Your task to perform on an android device: create a new album in the google photos Image 0: 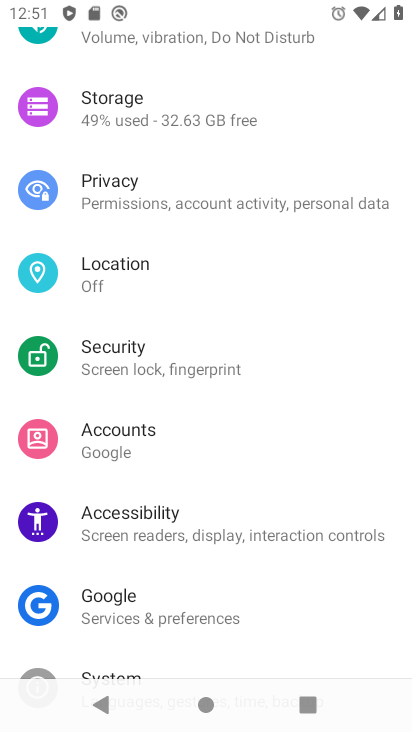
Step 0: press home button
Your task to perform on an android device: create a new album in the google photos Image 1: 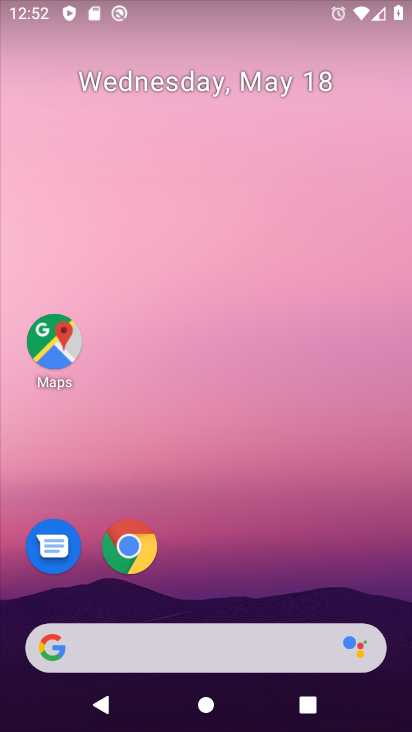
Step 1: drag from (214, 689) to (214, 115)
Your task to perform on an android device: create a new album in the google photos Image 2: 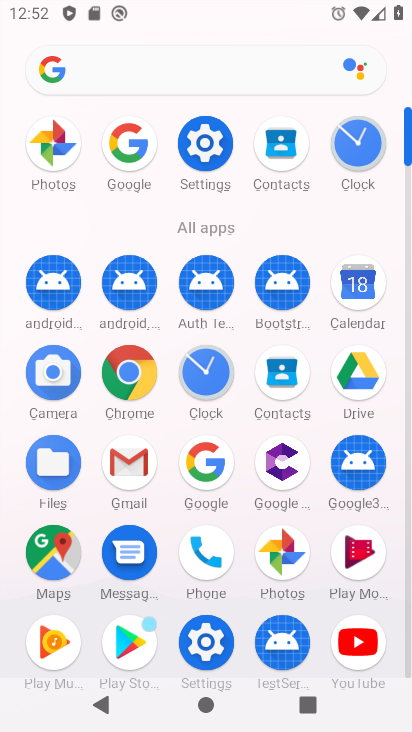
Step 2: click (287, 555)
Your task to perform on an android device: create a new album in the google photos Image 3: 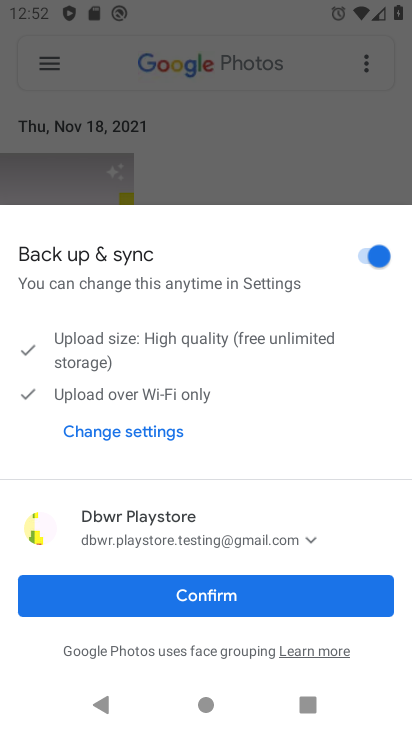
Step 3: click (269, 605)
Your task to perform on an android device: create a new album in the google photos Image 4: 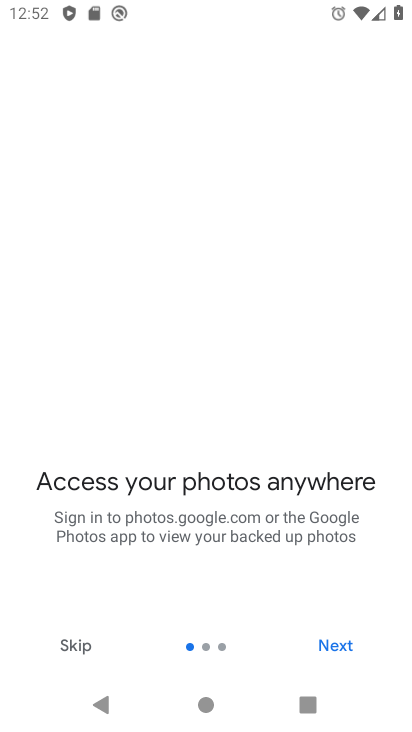
Step 4: click (344, 648)
Your task to perform on an android device: create a new album in the google photos Image 5: 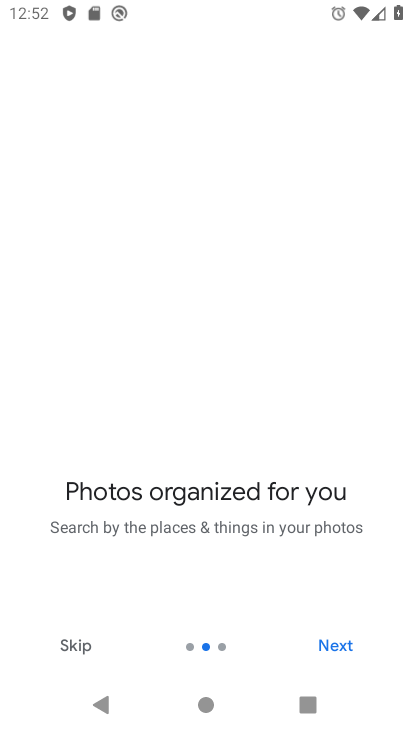
Step 5: click (337, 656)
Your task to perform on an android device: create a new album in the google photos Image 6: 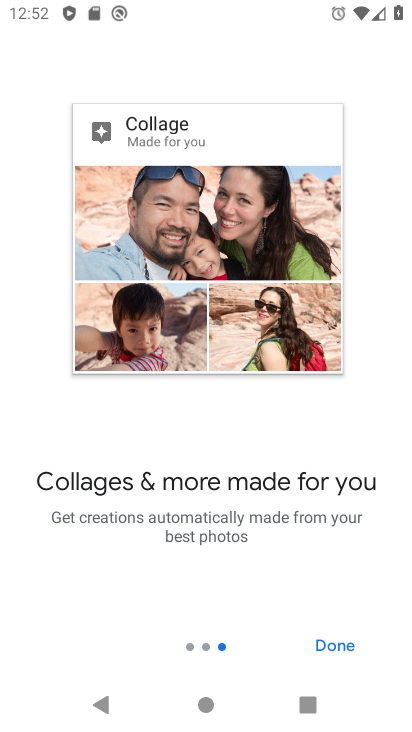
Step 6: click (342, 654)
Your task to perform on an android device: create a new album in the google photos Image 7: 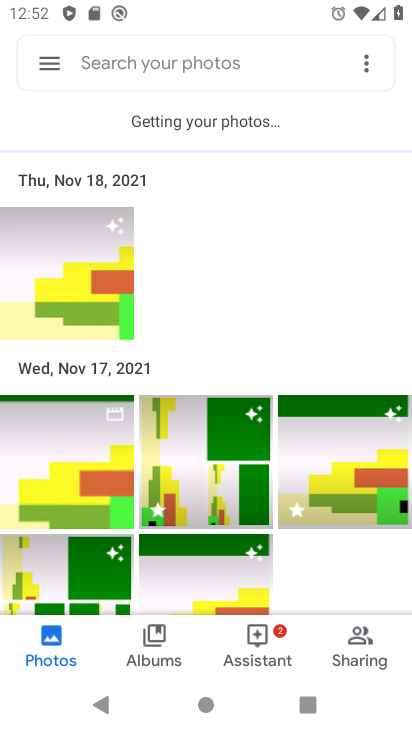
Step 7: click (171, 651)
Your task to perform on an android device: create a new album in the google photos Image 8: 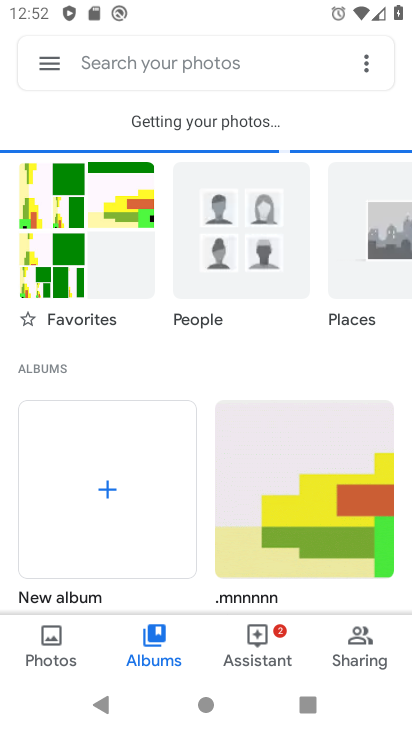
Step 8: click (131, 524)
Your task to perform on an android device: create a new album in the google photos Image 9: 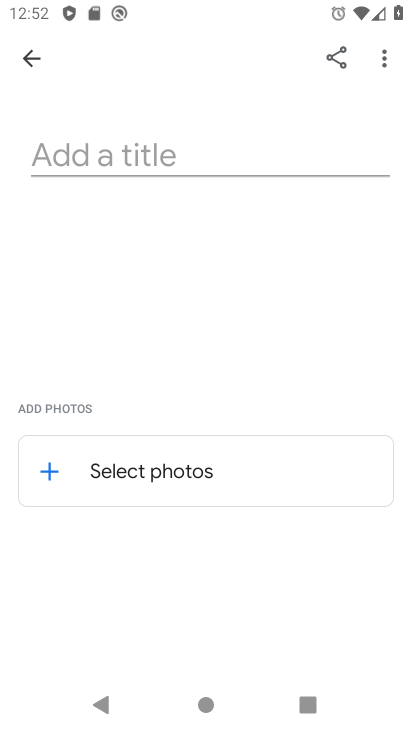
Step 9: click (161, 157)
Your task to perform on an android device: create a new album in the google photos Image 10: 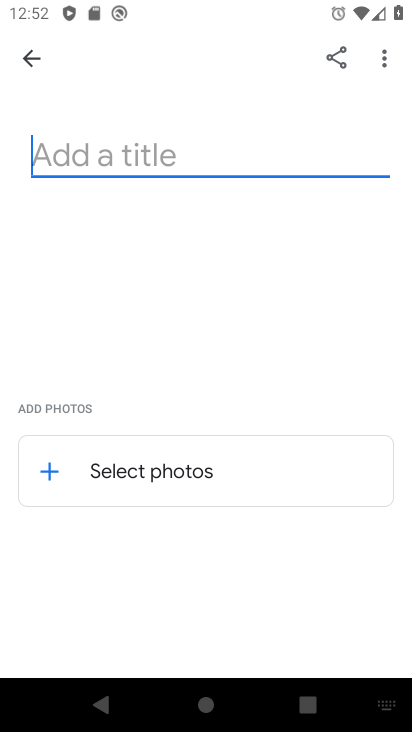
Step 10: type "jhgjg"
Your task to perform on an android device: create a new album in the google photos Image 11: 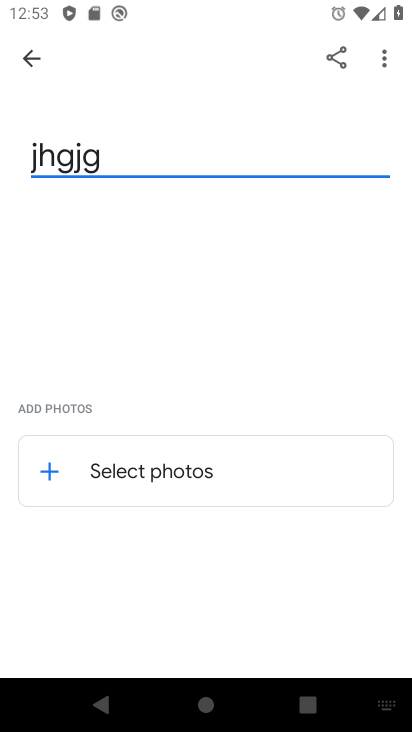
Step 11: click (58, 472)
Your task to perform on an android device: create a new album in the google photos Image 12: 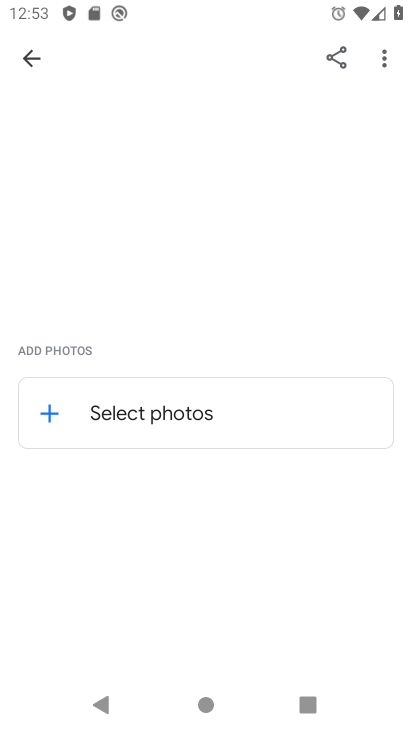
Step 12: click (52, 419)
Your task to perform on an android device: create a new album in the google photos Image 13: 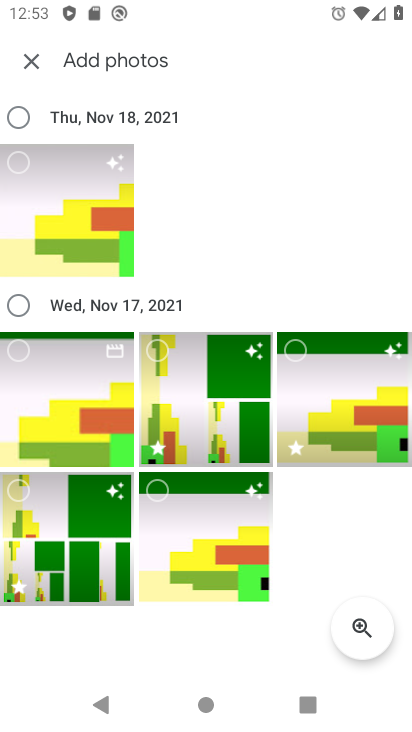
Step 13: click (26, 361)
Your task to perform on an android device: create a new album in the google photos Image 14: 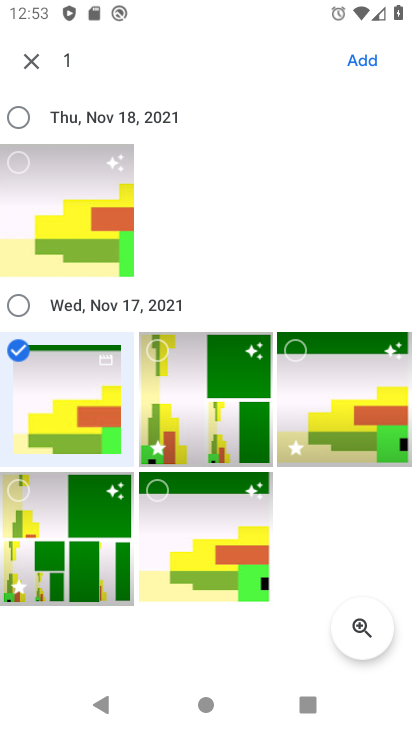
Step 14: click (154, 350)
Your task to perform on an android device: create a new album in the google photos Image 15: 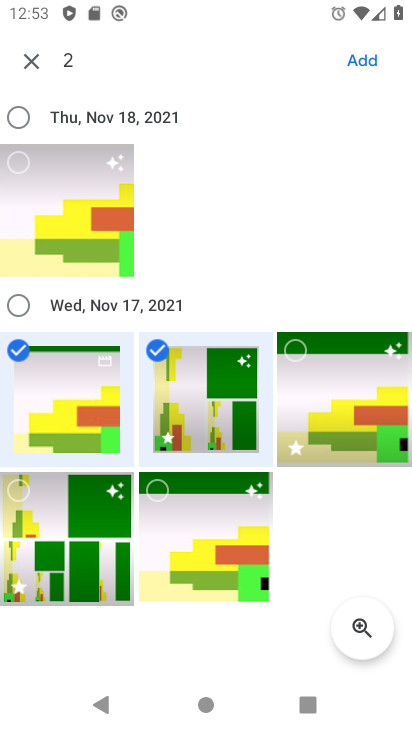
Step 15: click (365, 63)
Your task to perform on an android device: create a new album in the google photos Image 16: 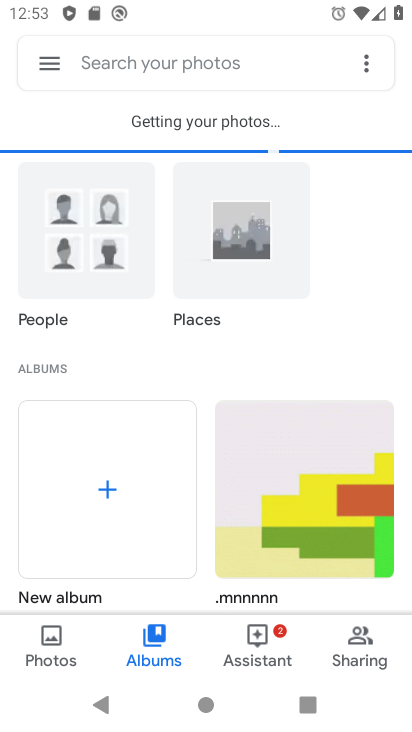
Step 16: task complete